Your task to perform on an android device: Clear the cart on newegg. Add "alienware aurora" to the cart on newegg Image 0: 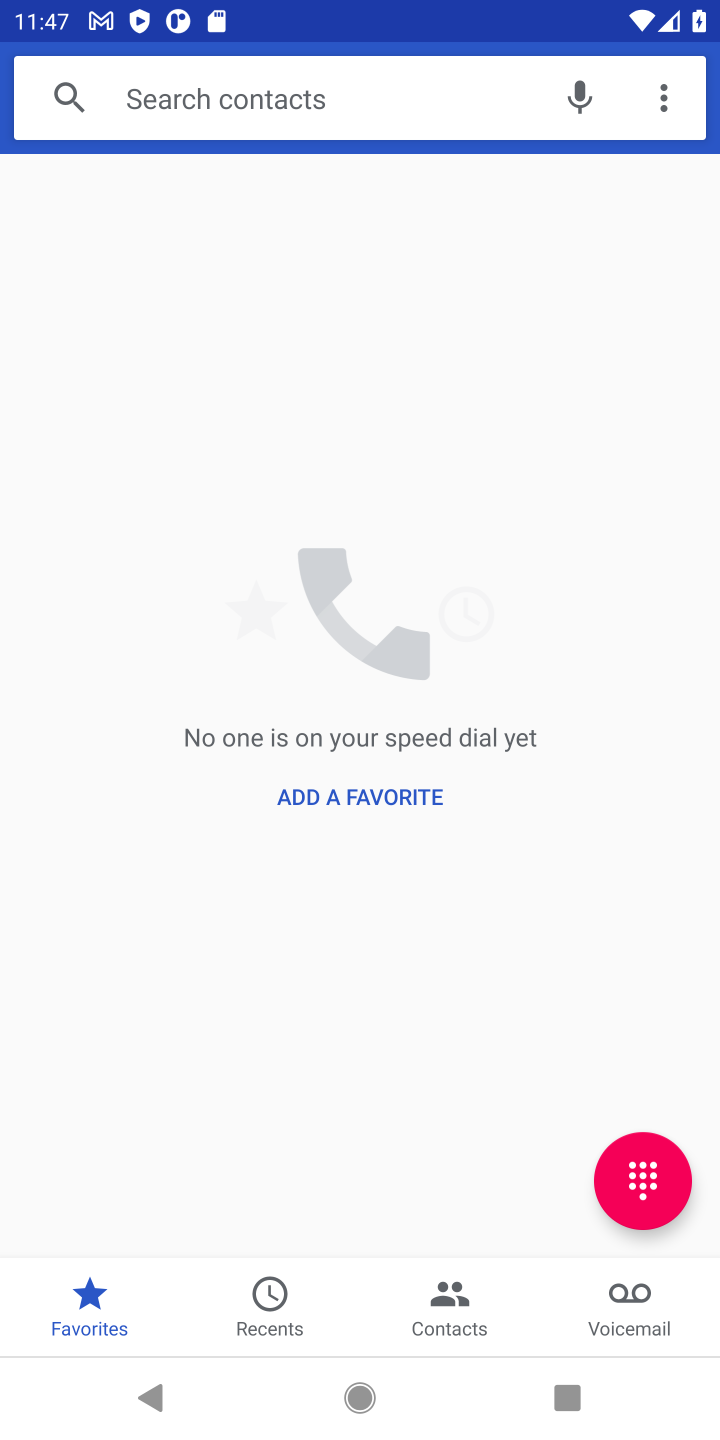
Step 0: press home button
Your task to perform on an android device: Clear the cart on newegg. Add "alienware aurora" to the cart on newegg Image 1: 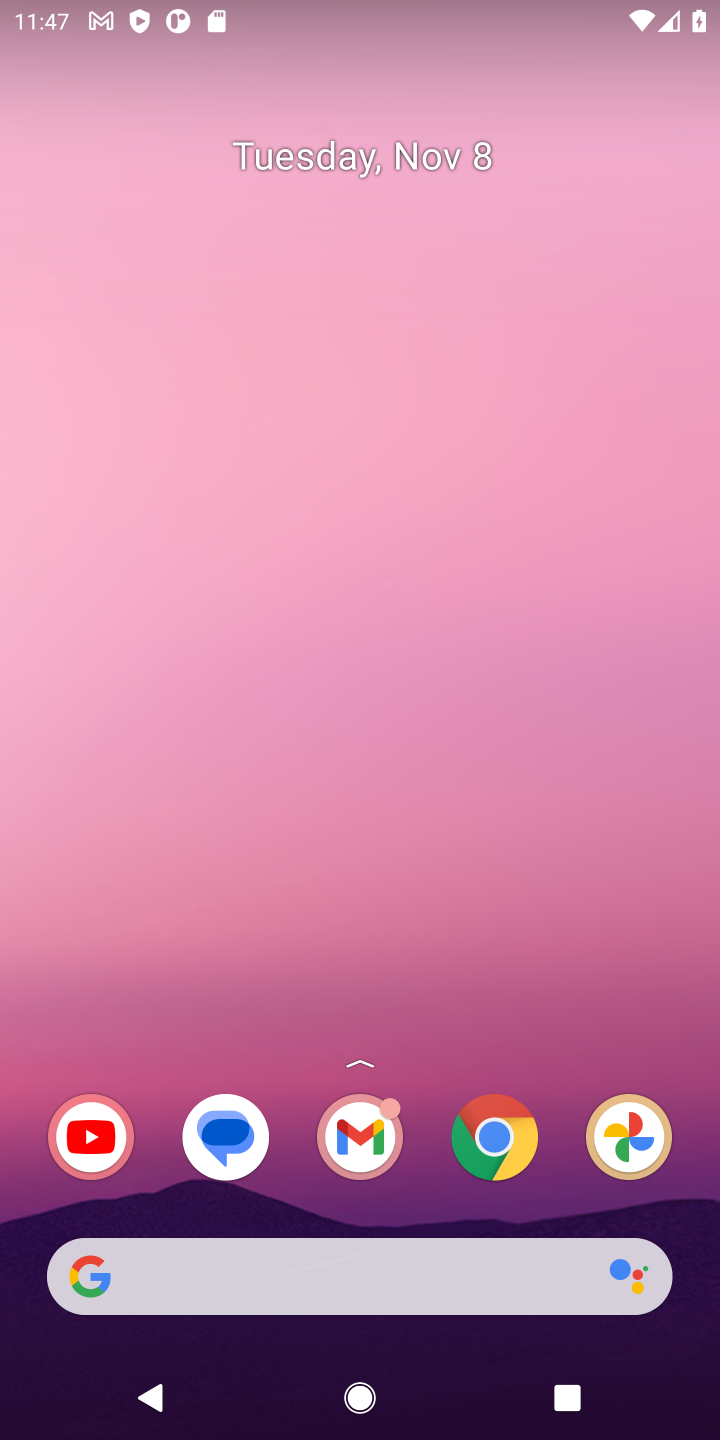
Step 1: click (499, 1141)
Your task to perform on an android device: Clear the cart on newegg. Add "alienware aurora" to the cart on newegg Image 2: 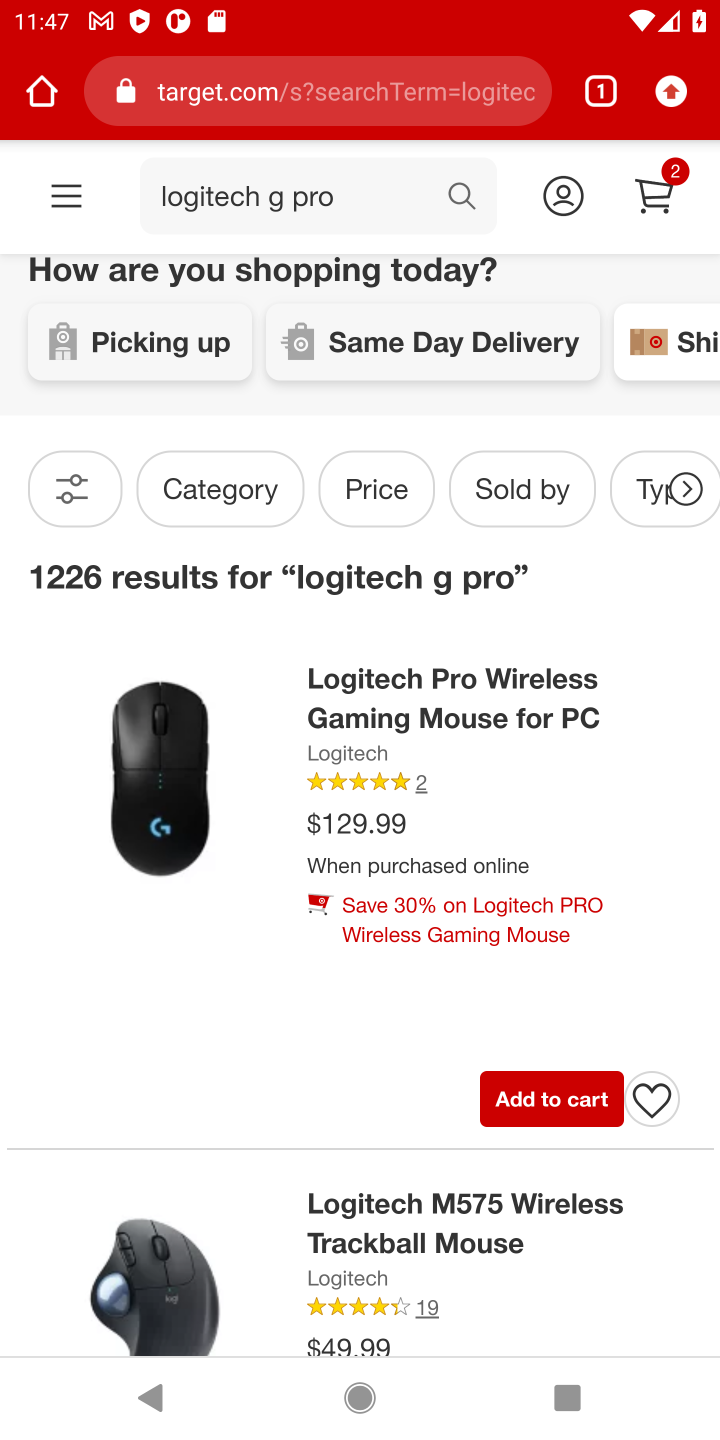
Step 2: click (381, 107)
Your task to perform on an android device: Clear the cart on newegg. Add "alienware aurora" to the cart on newegg Image 3: 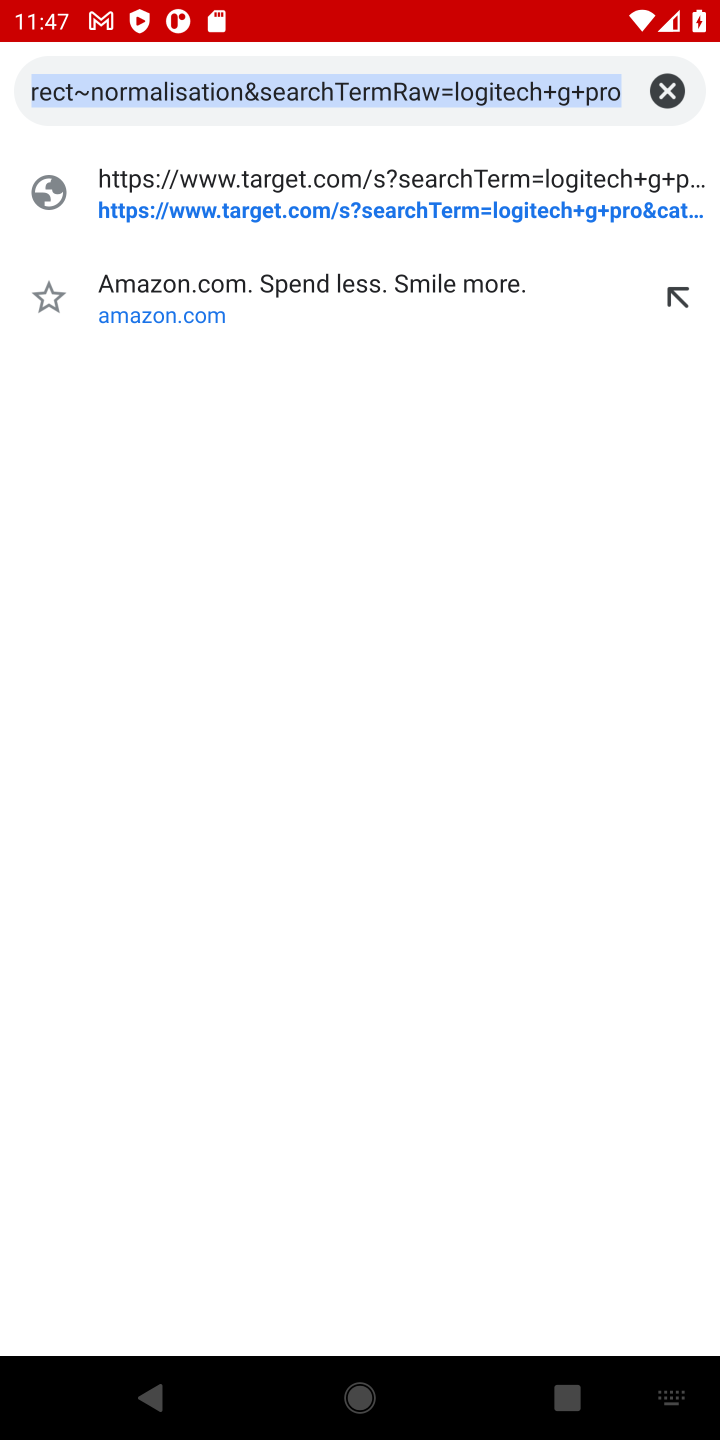
Step 3: click (660, 86)
Your task to perform on an android device: Clear the cart on newegg. Add "alienware aurora" to the cart on newegg Image 4: 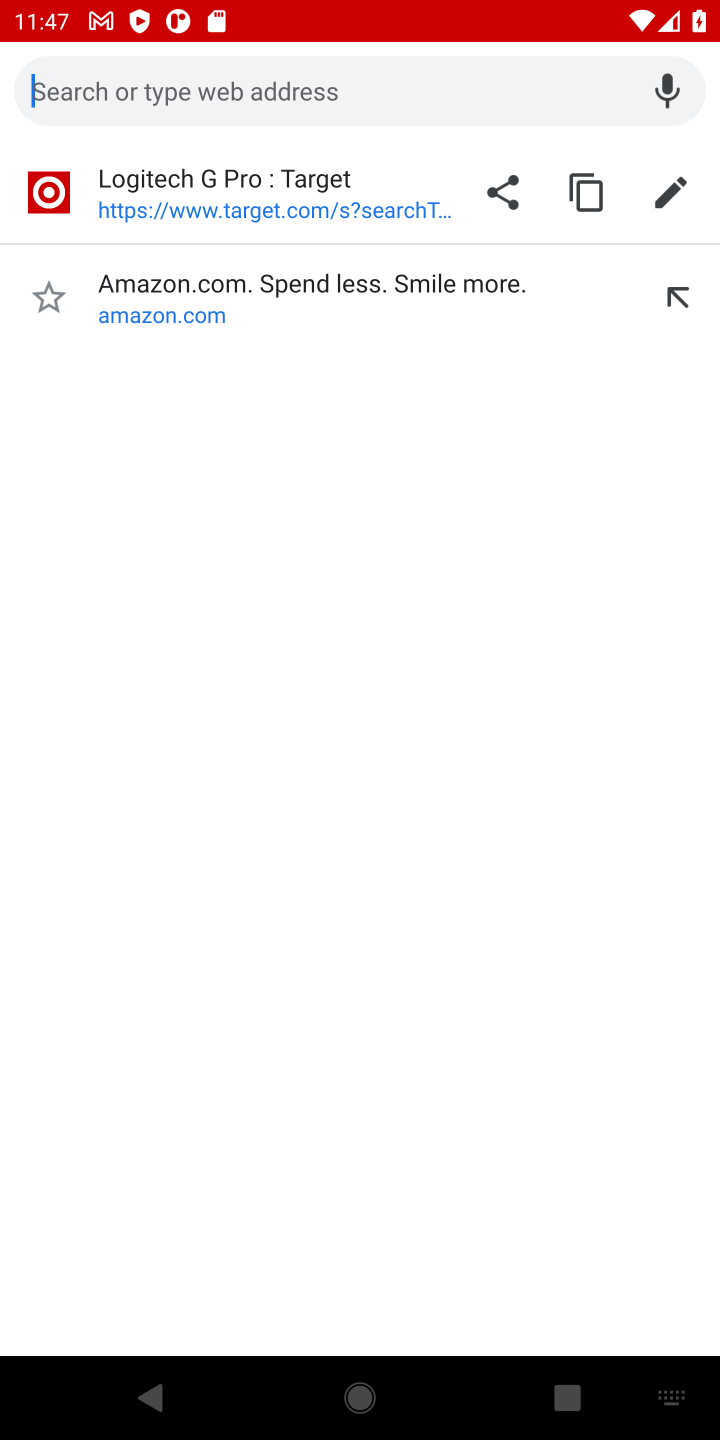
Step 4: type "newegg"
Your task to perform on an android device: Clear the cart on newegg. Add "alienware aurora" to the cart on newegg Image 5: 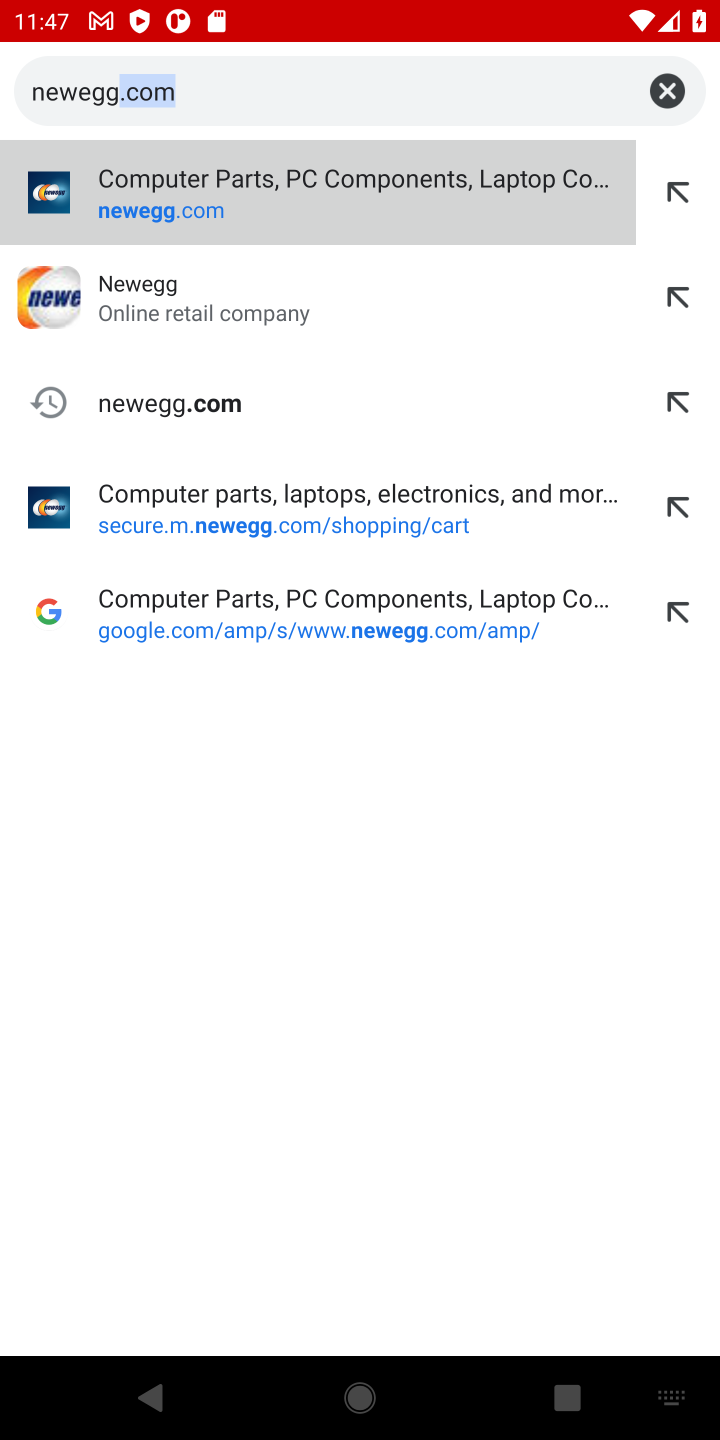
Step 5: click (169, 290)
Your task to perform on an android device: Clear the cart on newegg. Add "alienware aurora" to the cart on newegg Image 6: 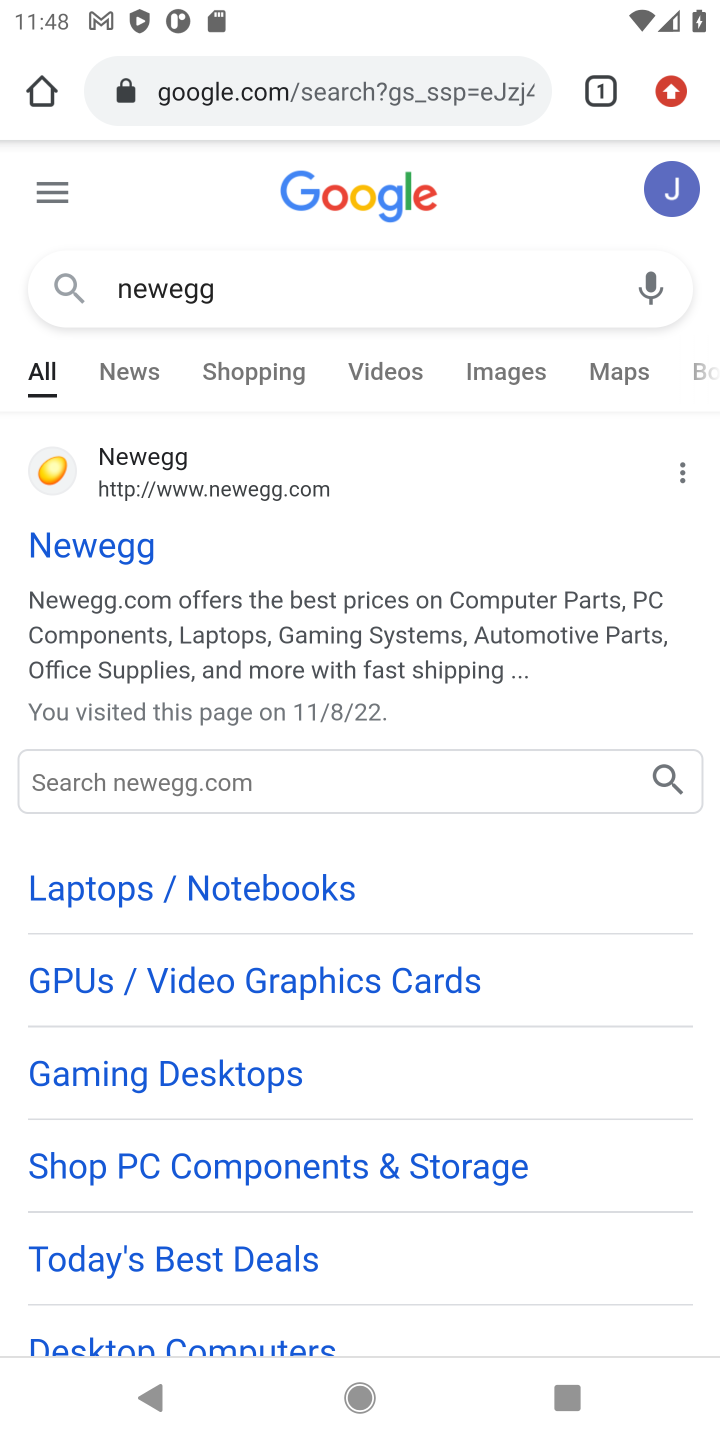
Step 6: click (123, 550)
Your task to perform on an android device: Clear the cart on newegg. Add "alienware aurora" to the cart on newegg Image 7: 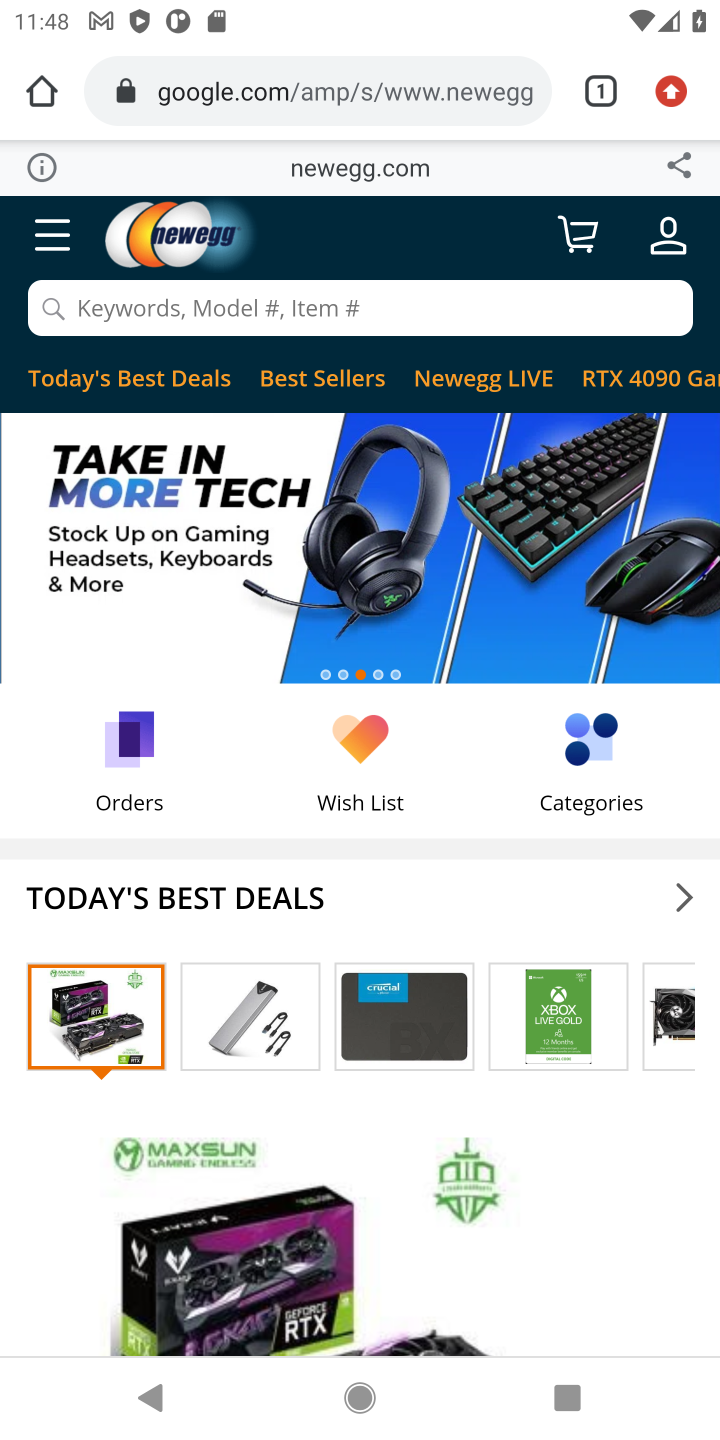
Step 7: click (583, 234)
Your task to perform on an android device: Clear the cart on newegg. Add "alienware aurora" to the cart on newegg Image 8: 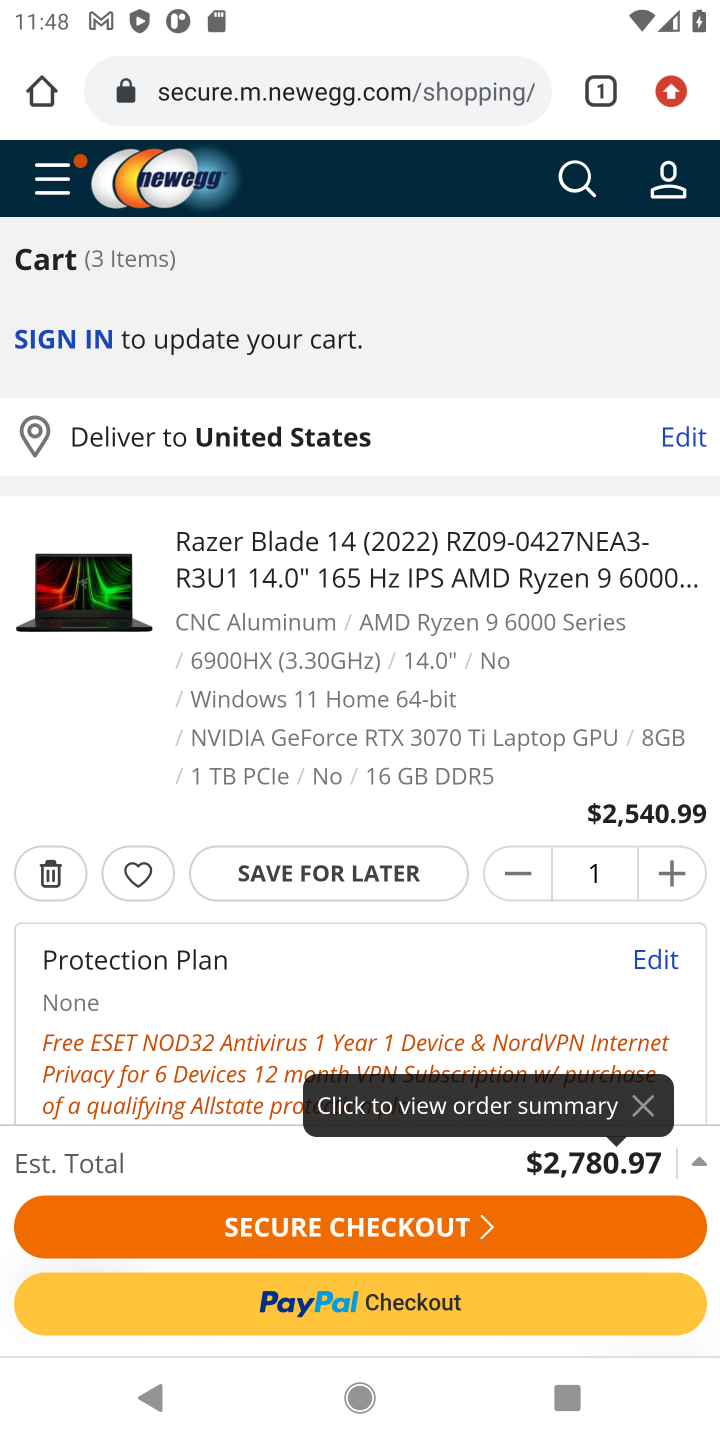
Step 8: click (46, 858)
Your task to perform on an android device: Clear the cart on newegg. Add "alienware aurora" to the cart on newegg Image 9: 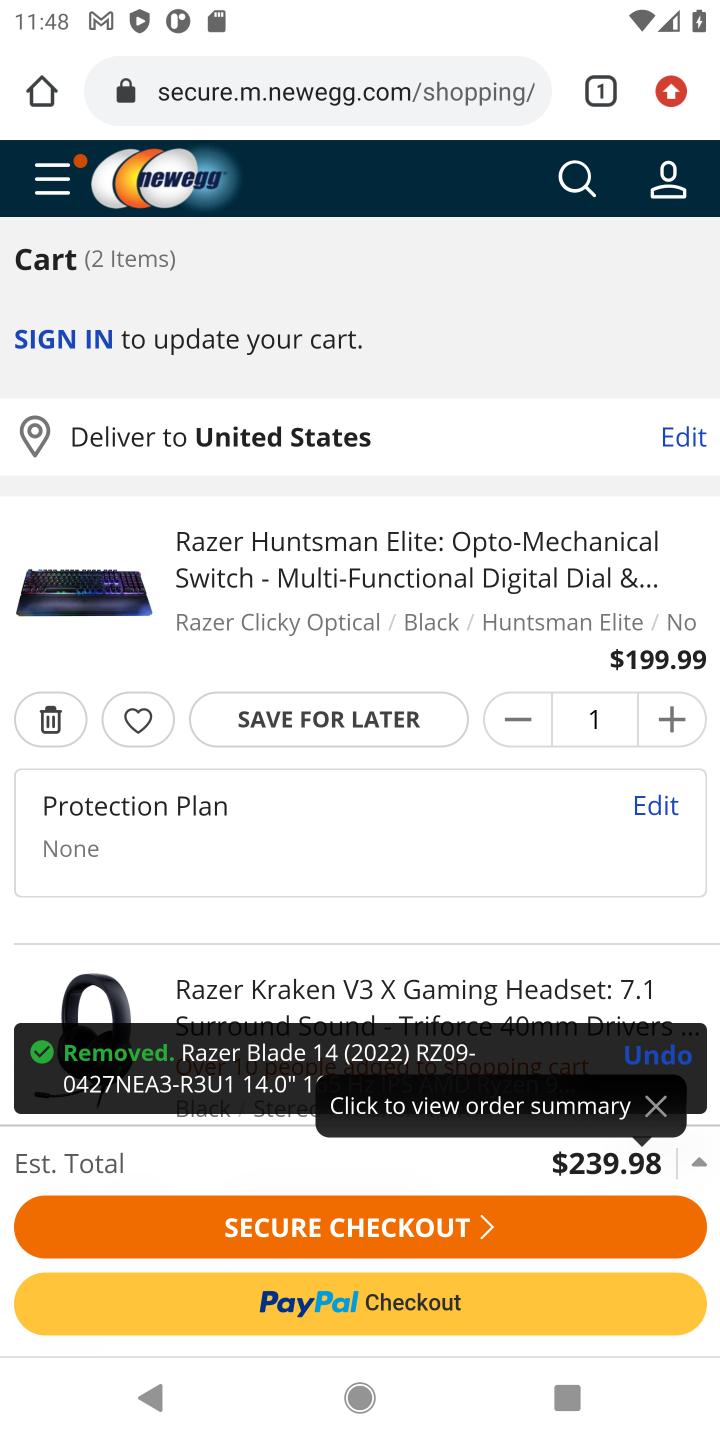
Step 9: click (44, 721)
Your task to perform on an android device: Clear the cart on newegg. Add "alienware aurora" to the cart on newegg Image 10: 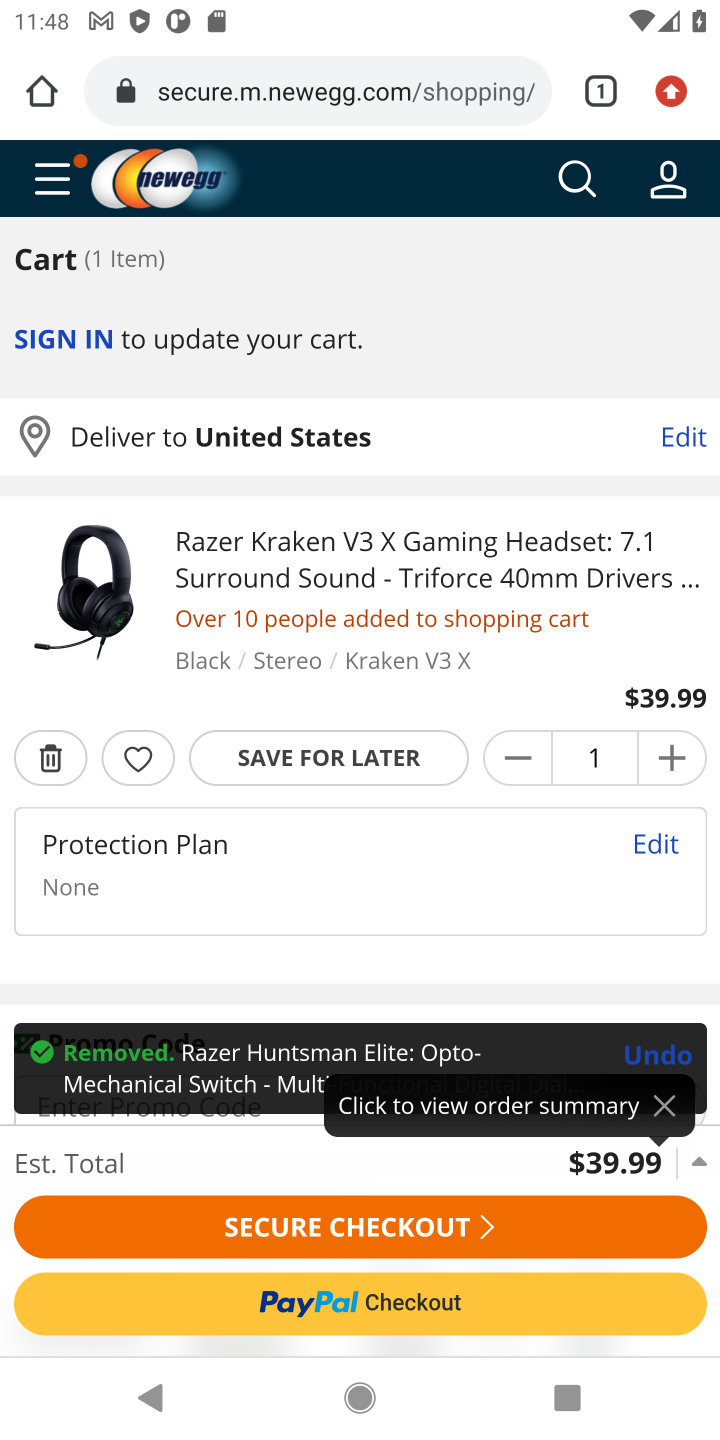
Step 10: click (51, 757)
Your task to perform on an android device: Clear the cart on newegg. Add "alienware aurora" to the cart on newegg Image 11: 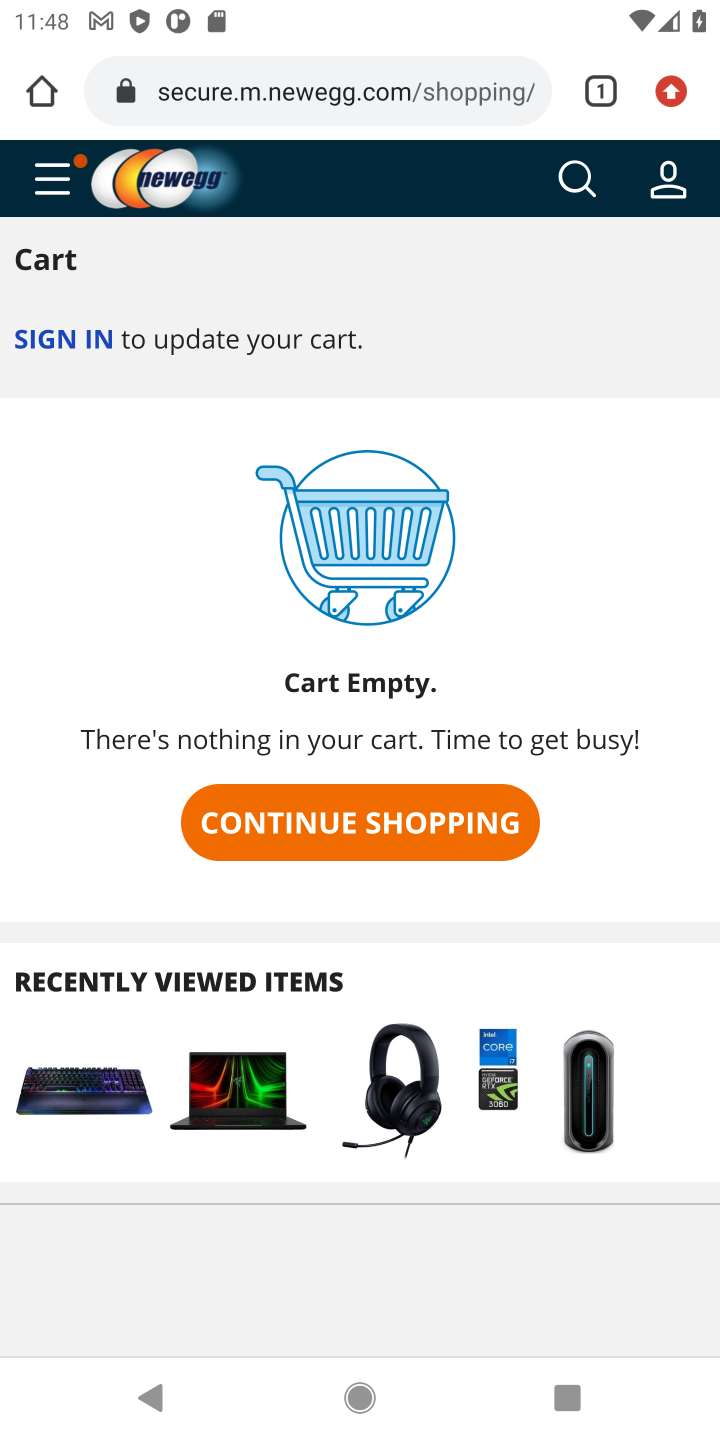
Step 11: click (568, 176)
Your task to perform on an android device: Clear the cart on newegg. Add "alienware aurora" to the cart on newegg Image 12: 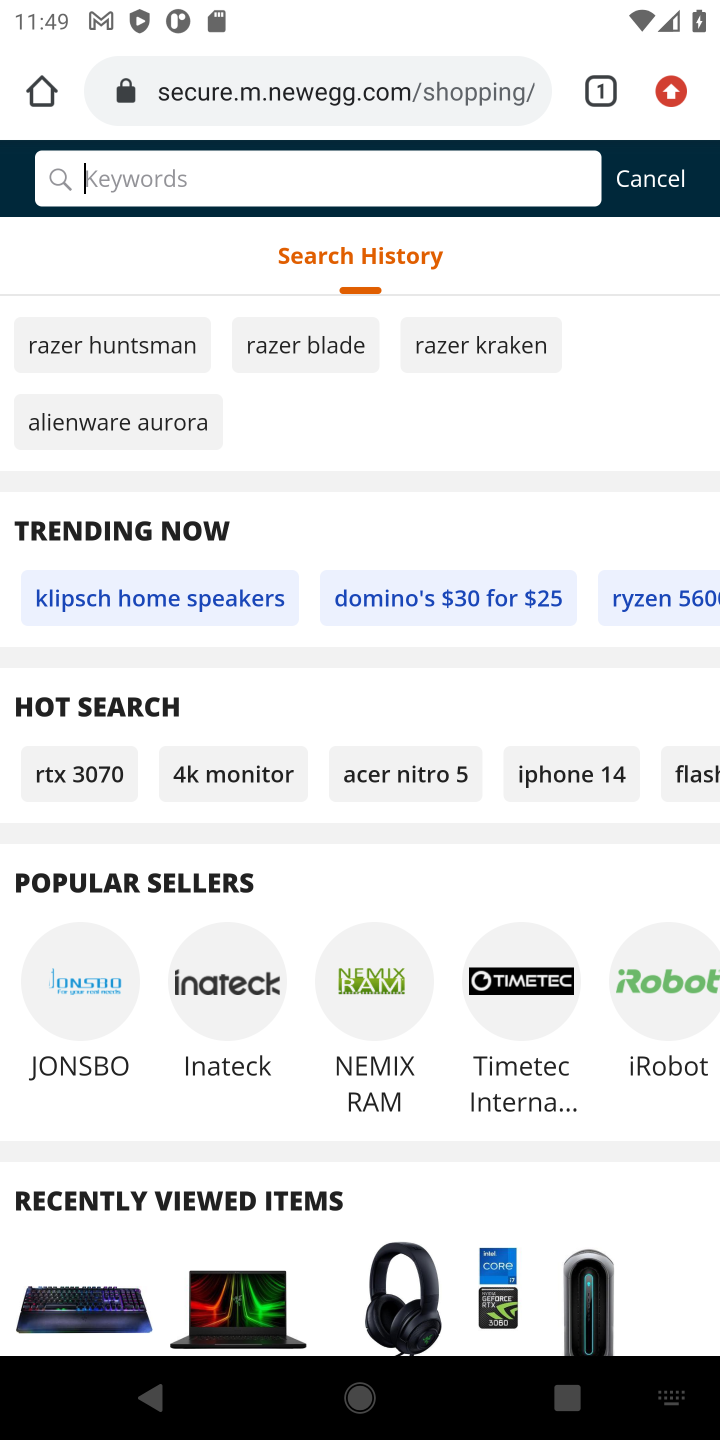
Step 12: type "alienware aurora"
Your task to perform on an android device: Clear the cart on newegg. Add "alienware aurora" to the cart on newegg Image 13: 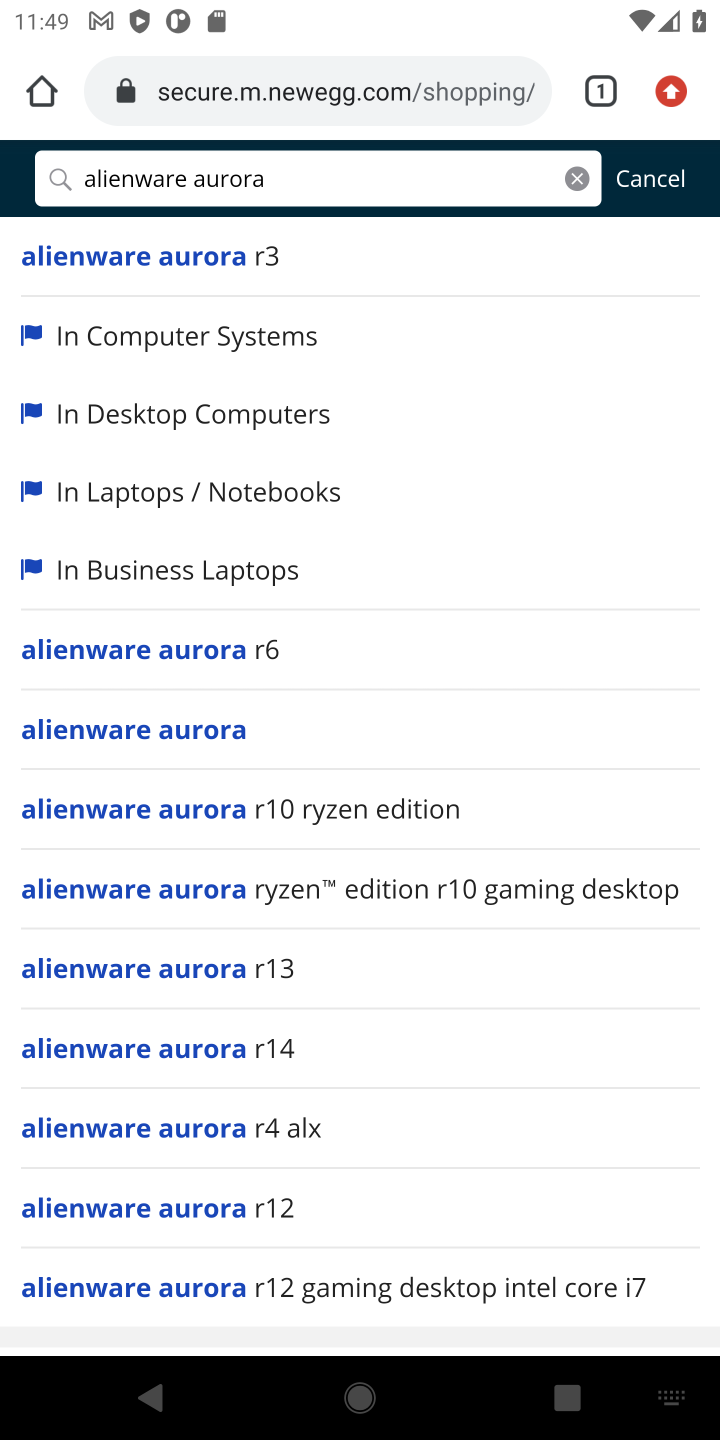
Step 13: click (226, 734)
Your task to perform on an android device: Clear the cart on newegg. Add "alienware aurora" to the cart on newegg Image 14: 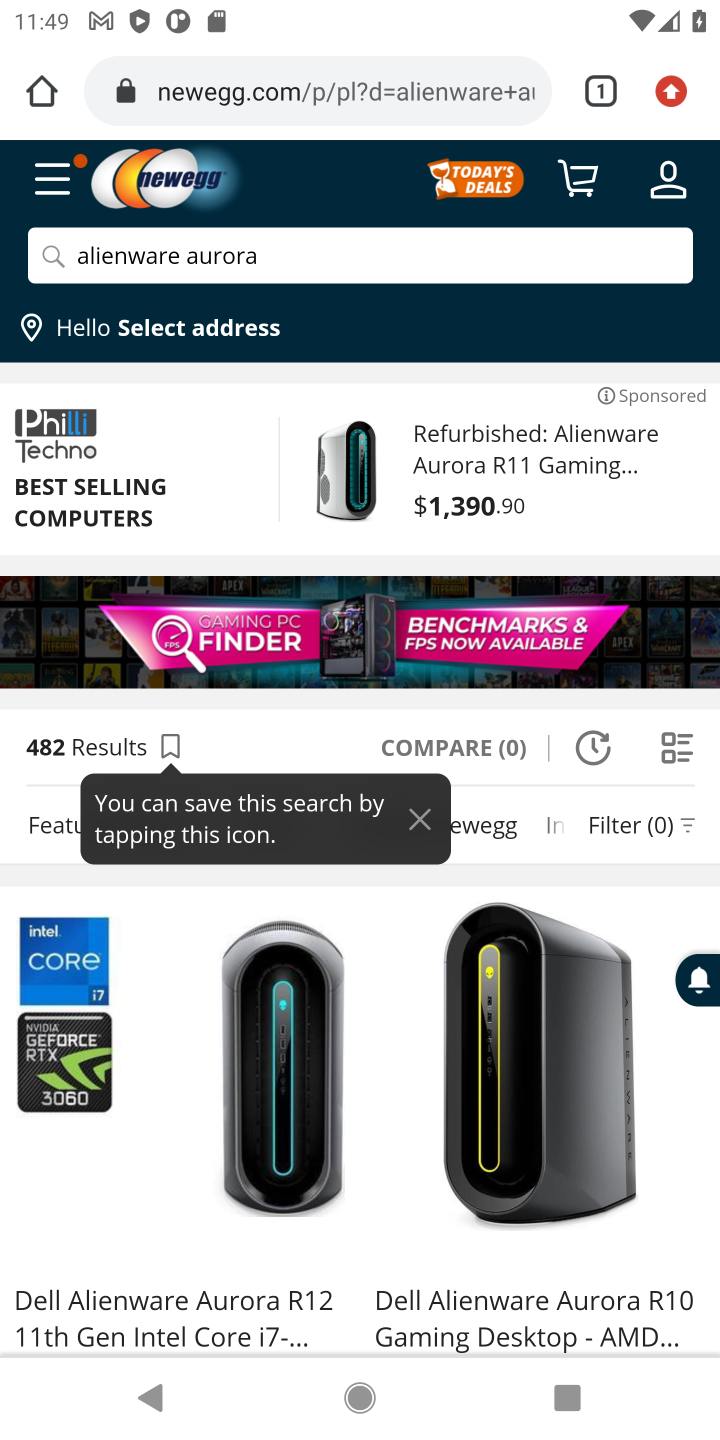
Step 14: click (208, 1285)
Your task to perform on an android device: Clear the cart on newegg. Add "alienware aurora" to the cart on newegg Image 15: 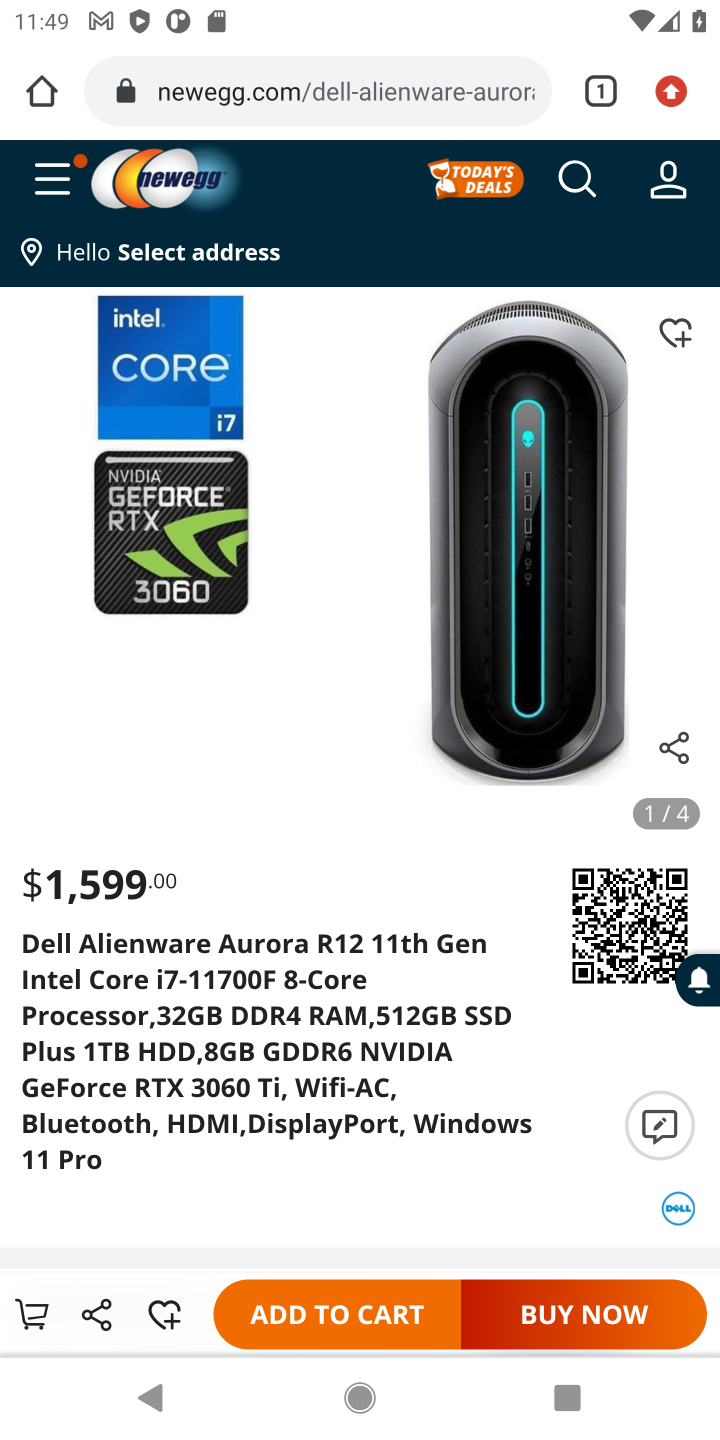
Step 15: click (313, 1311)
Your task to perform on an android device: Clear the cart on newegg. Add "alienware aurora" to the cart on newegg Image 16: 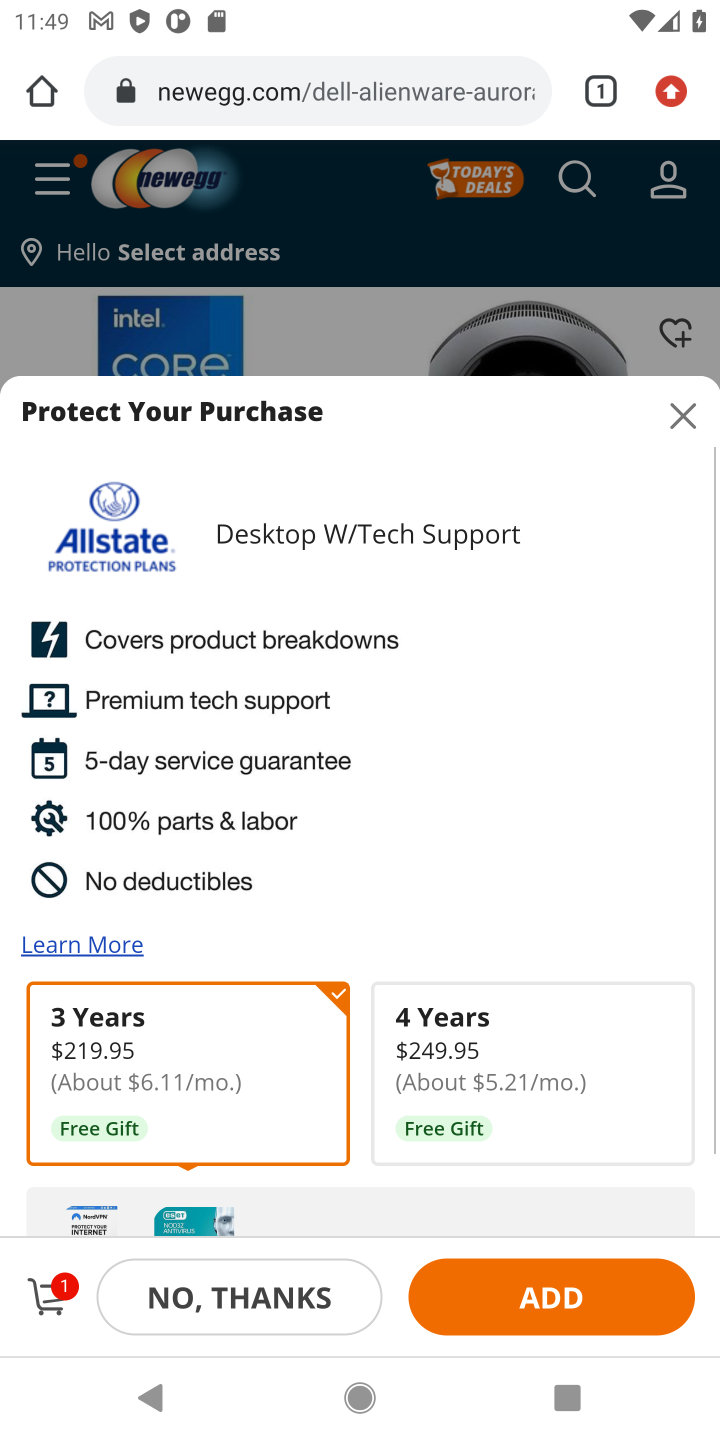
Step 16: click (259, 1293)
Your task to perform on an android device: Clear the cart on newegg. Add "alienware aurora" to the cart on newegg Image 17: 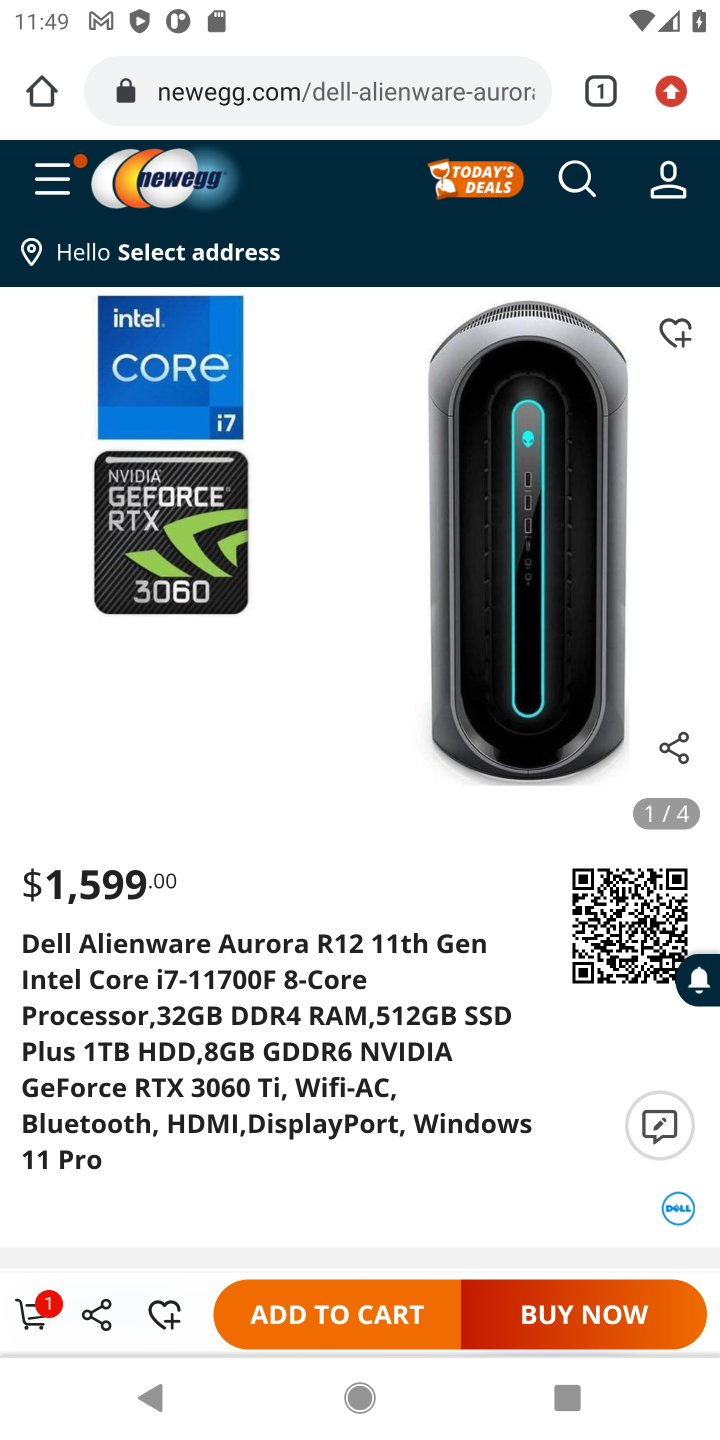
Step 17: task complete